Your task to perform on an android device: Open CNN.com Image 0: 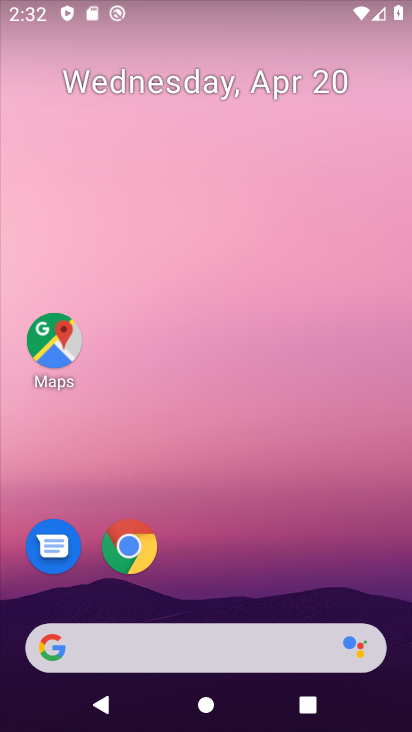
Step 0: click (131, 557)
Your task to perform on an android device: Open CNN.com Image 1: 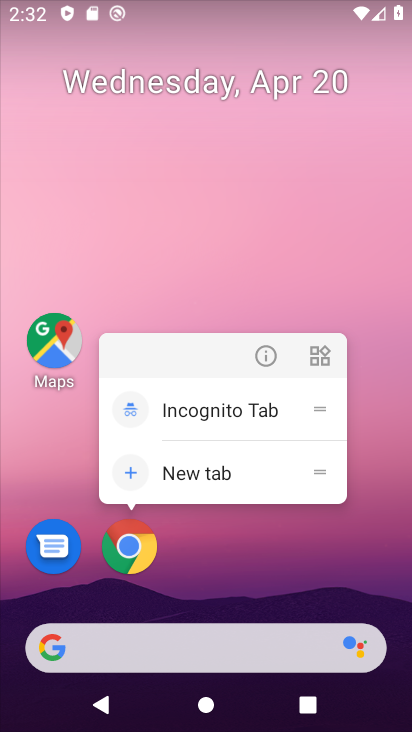
Step 1: click (131, 557)
Your task to perform on an android device: Open CNN.com Image 2: 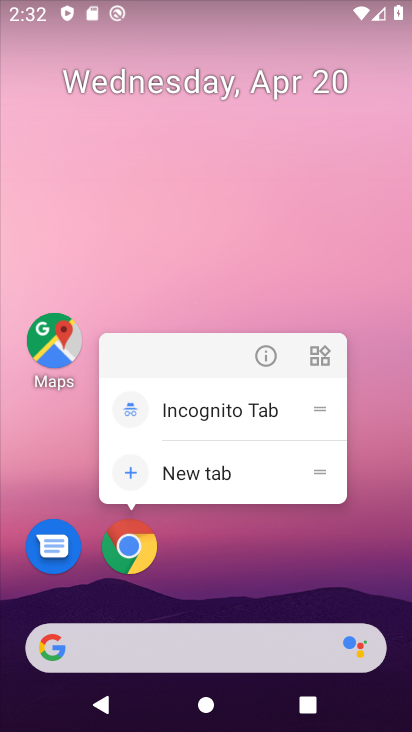
Step 2: click (134, 542)
Your task to perform on an android device: Open CNN.com Image 3: 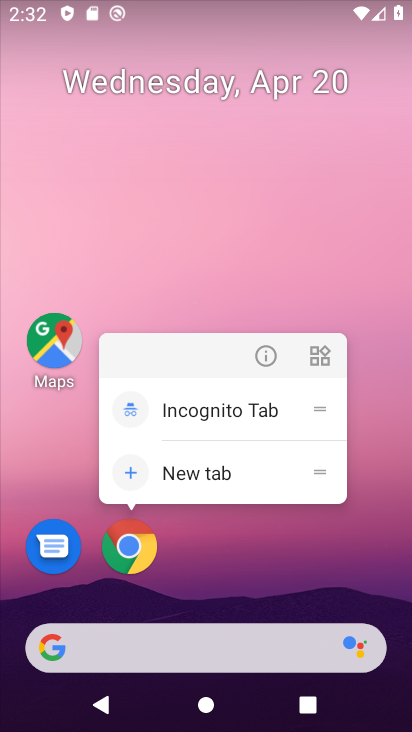
Step 3: click (132, 541)
Your task to perform on an android device: Open CNN.com Image 4: 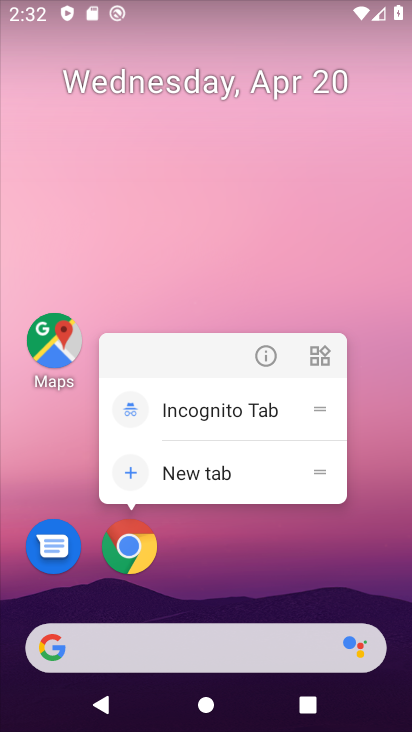
Step 4: click (109, 534)
Your task to perform on an android device: Open CNN.com Image 5: 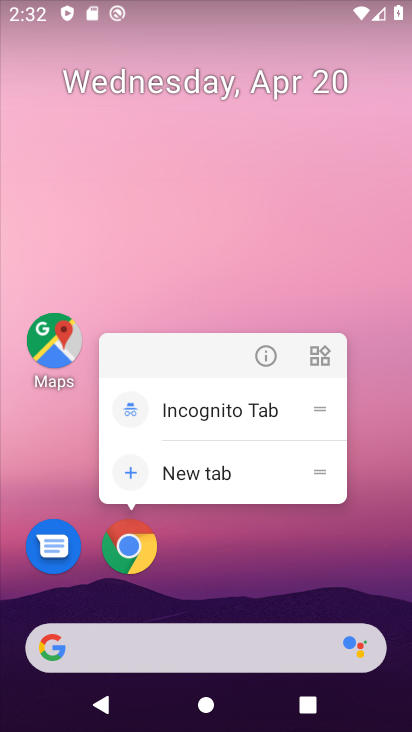
Step 5: click (122, 550)
Your task to perform on an android device: Open CNN.com Image 6: 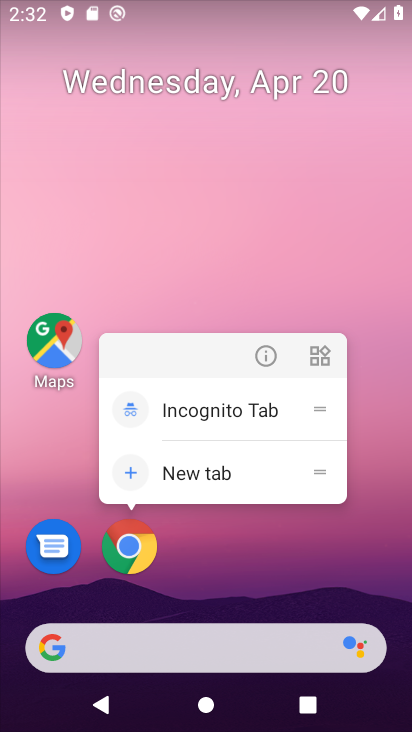
Step 6: click (136, 559)
Your task to perform on an android device: Open CNN.com Image 7: 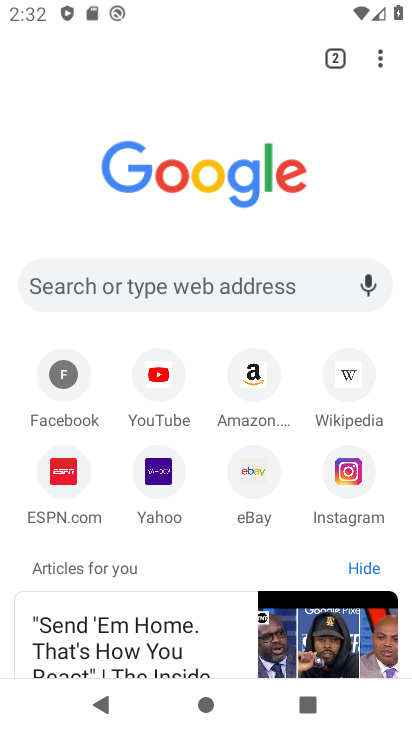
Step 7: click (224, 291)
Your task to perform on an android device: Open CNN.com Image 8: 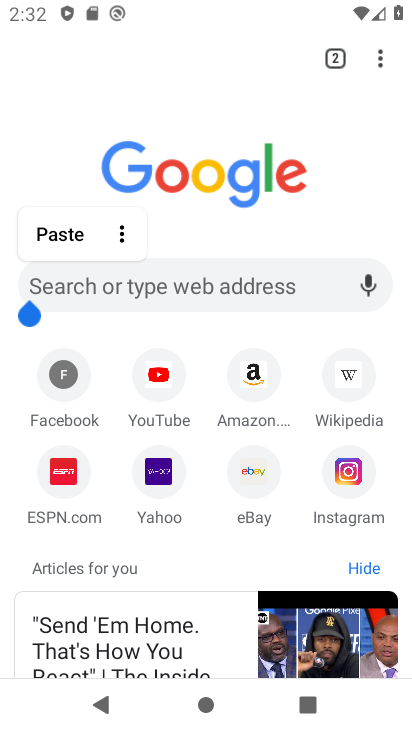
Step 8: click (175, 285)
Your task to perform on an android device: Open CNN.com Image 9: 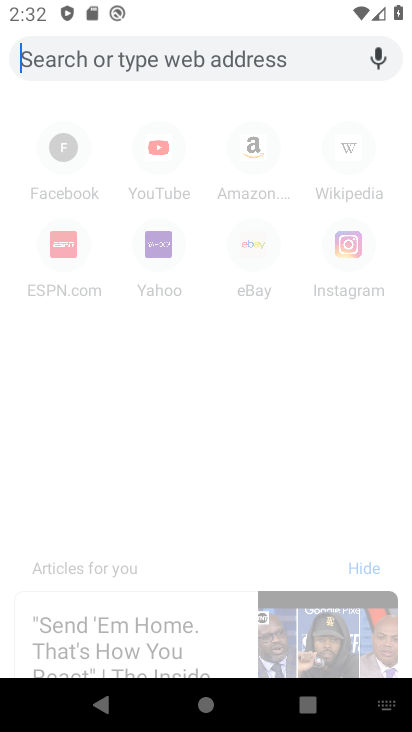
Step 9: type "CNN.com "
Your task to perform on an android device: Open CNN.com Image 10: 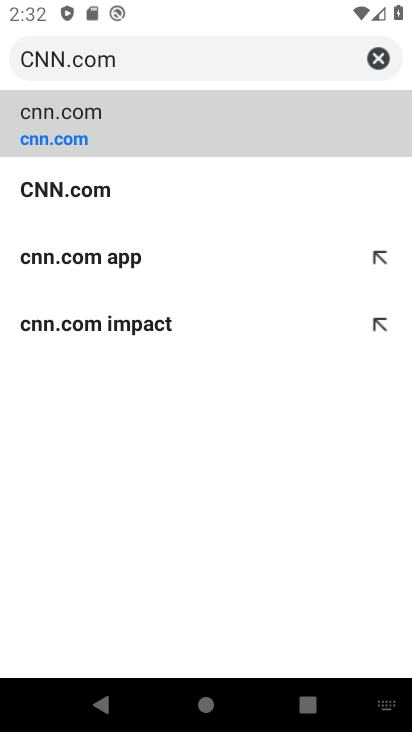
Step 10: click (75, 189)
Your task to perform on an android device: Open CNN.com Image 11: 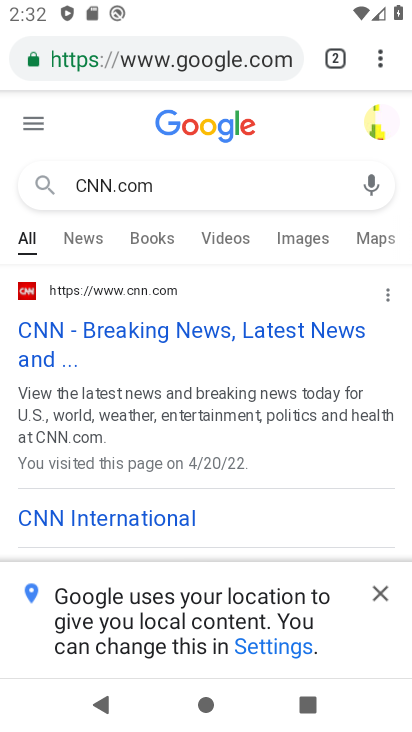
Step 11: click (57, 341)
Your task to perform on an android device: Open CNN.com Image 12: 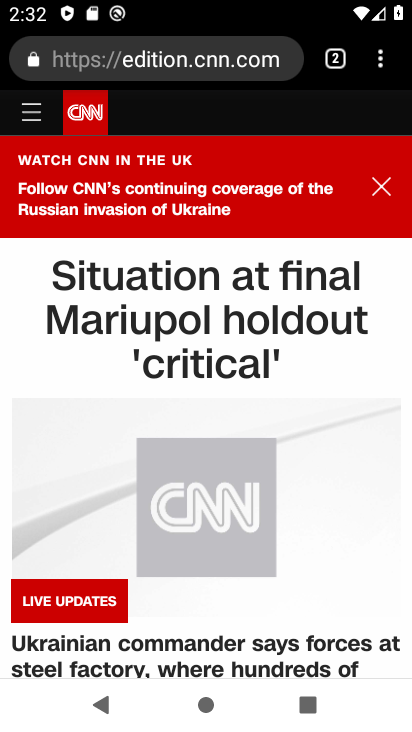
Step 12: task complete